Your task to perform on an android device: toggle translation in the chrome app Image 0: 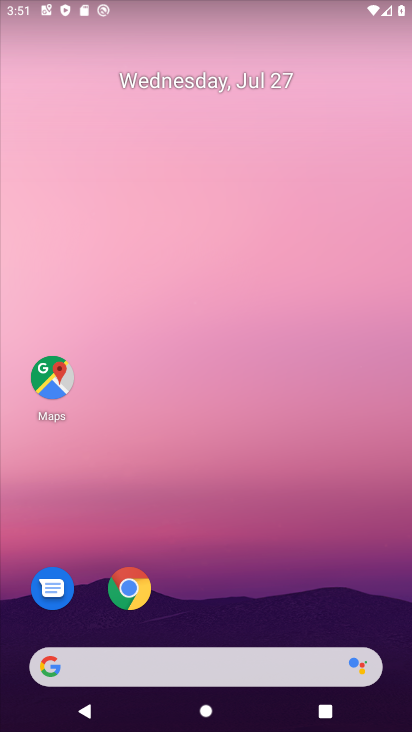
Step 0: press home button
Your task to perform on an android device: toggle translation in the chrome app Image 1: 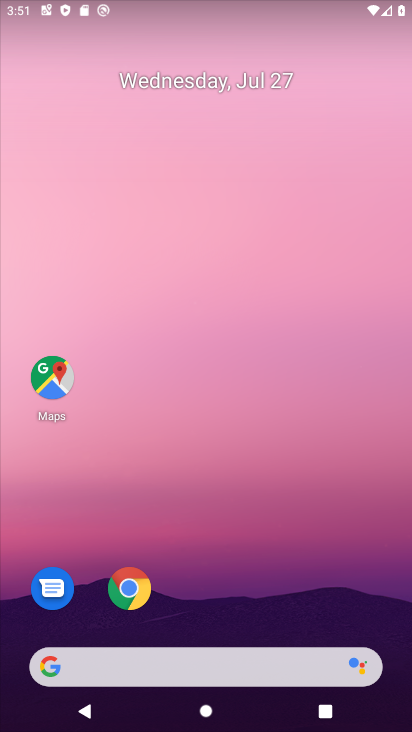
Step 1: drag from (197, 610) to (54, 19)
Your task to perform on an android device: toggle translation in the chrome app Image 2: 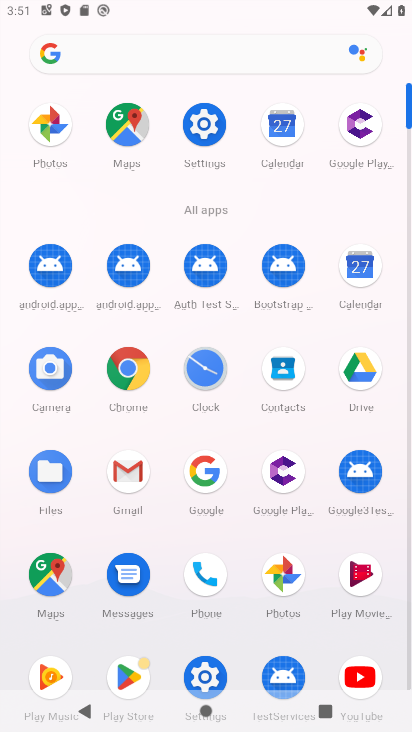
Step 2: click (128, 382)
Your task to perform on an android device: toggle translation in the chrome app Image 3: 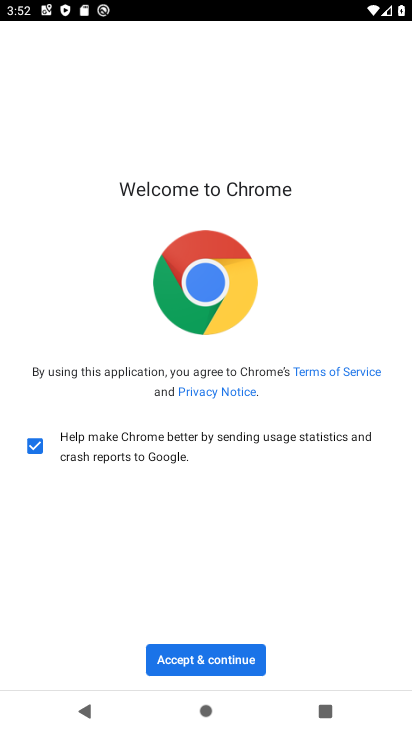
Step 3: click (223, 652)
Your task to perform on an android device: toggle translation in the chrome app Image 4: 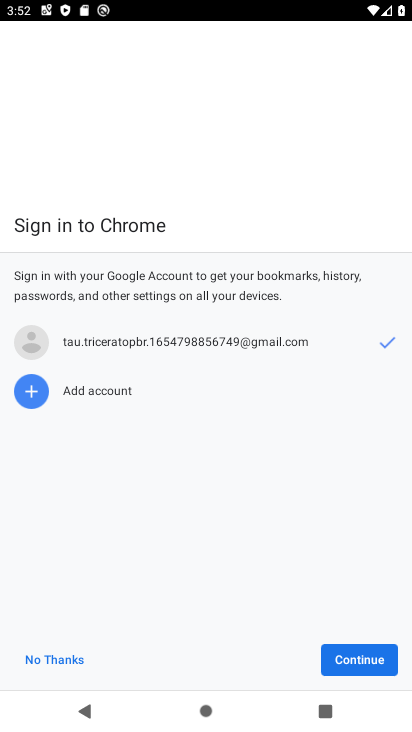
Step 4: click (336, 659)
Your task to perform on an android device: toggle translation in the chrome app Image 5: 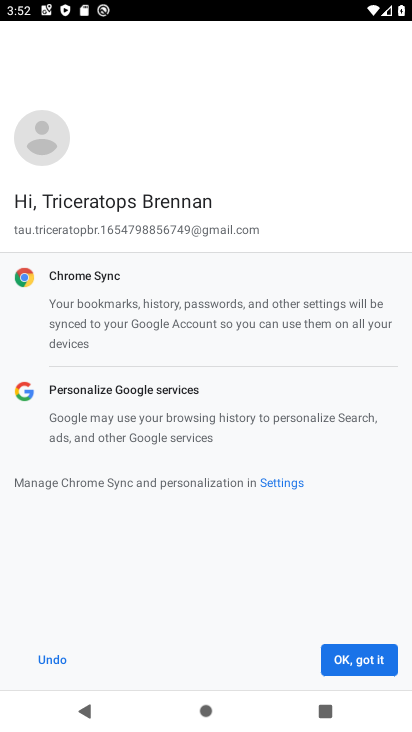
Step 5: click (343, 659)
Your task to perform on an android device: toggle translation in the chrome app Image 6: 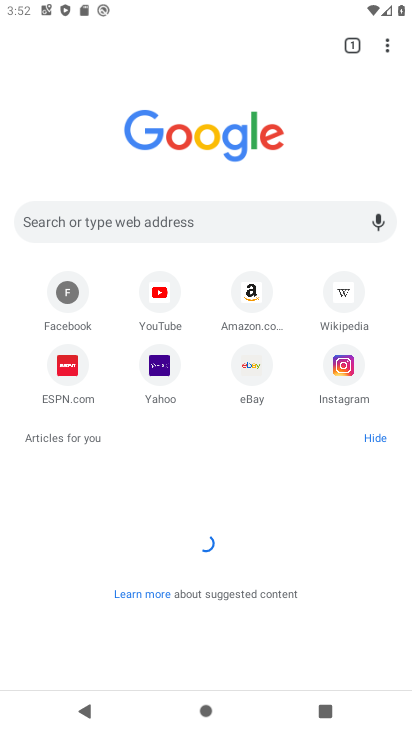
Step 6: drag from (390, 47) to (242, 393)
Your task to perform on an android device: toggle translation in the chrome app Image 7: 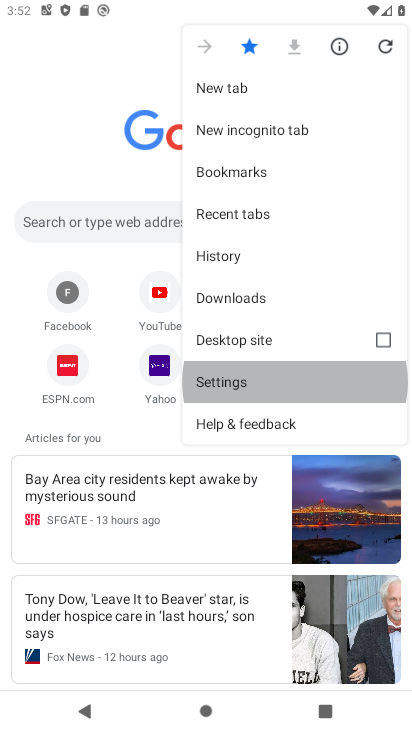
Step 7: click (242, 393)
Your task to perform on an android device: toggle translation in the chrome app Image 8: 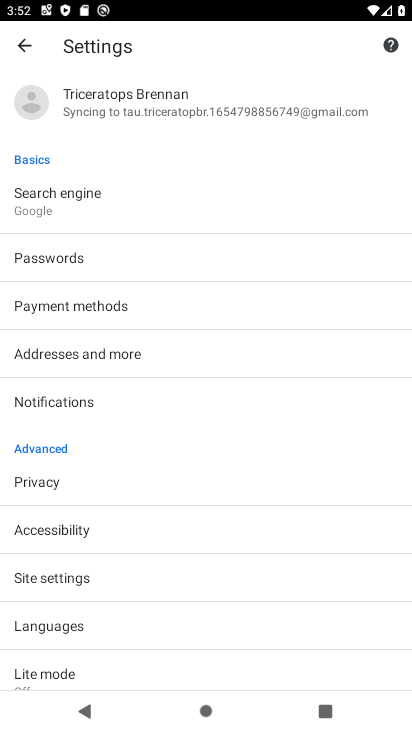
Step 8: click (59, 623)
Your task to perform on an android device: toggle translation in the chrome app Image 9: 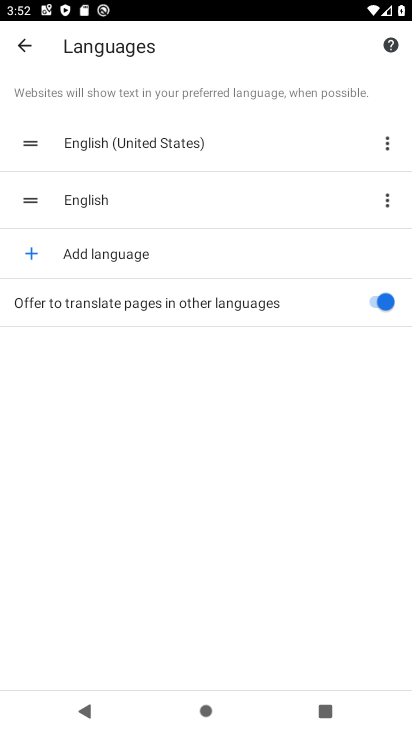
Step 9: click (382, 300)
Your task to perform on an android device: toggle translation in the chrome app Image 10: 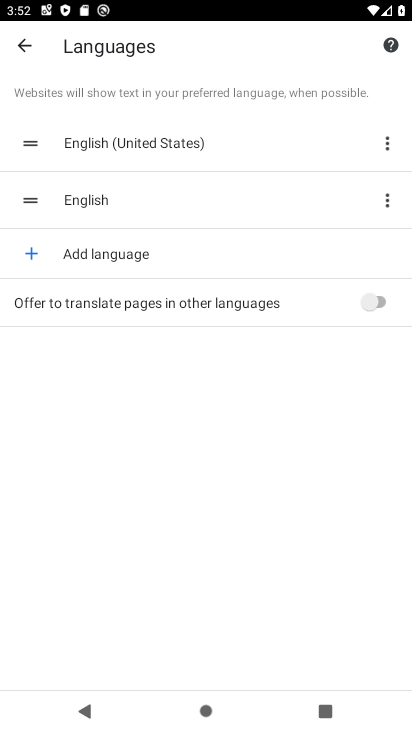
Step 10: task complete